Your task to perform on an android device: set default search engine in the chrome app Image 0: 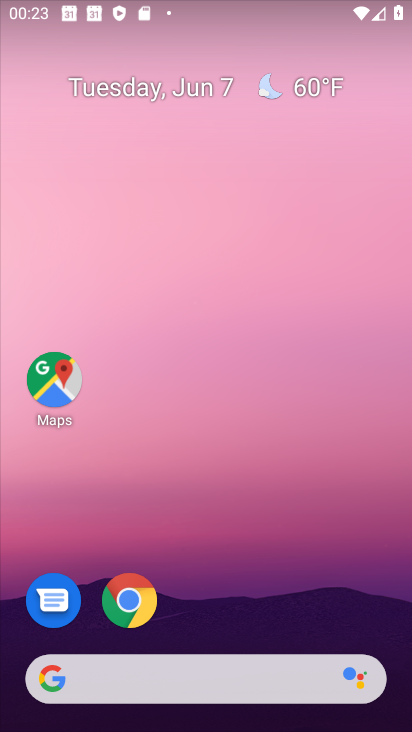
Step 0: click (126, 604)
Your task to perform on an android device: set default search engine in the chrome app Image 1: 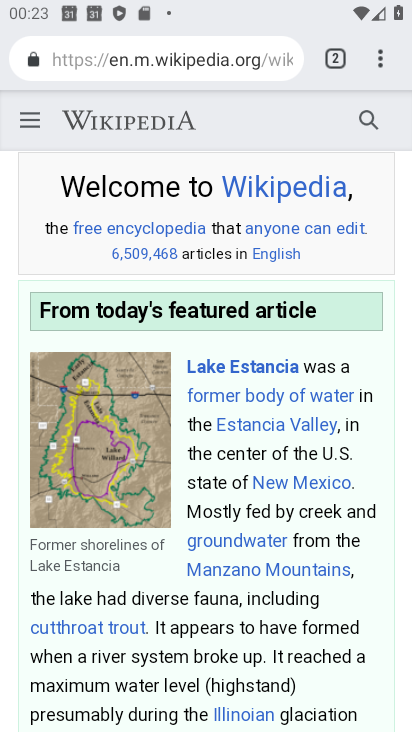
Step 1: click (380, 65)
Your task to perform on an android device: set default search engine in the chrome app Image 2: 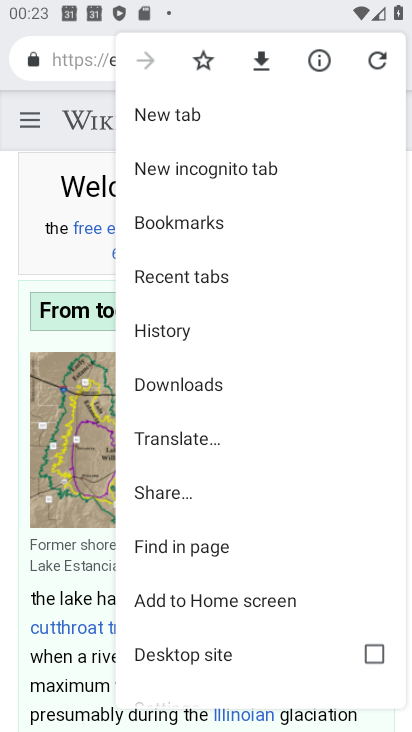
Step 2: drag from (211, 626) to (211, 310)
Your task to perform on an android device: set default search engine in the chrome app Image 3: 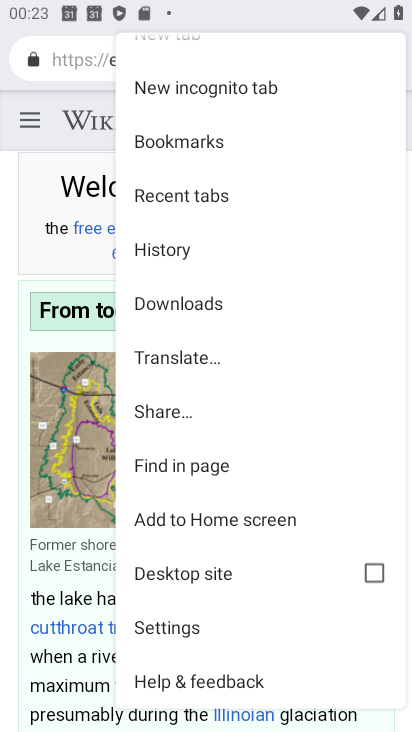
Step 3: click (180, 624)
Your task to perform on an android device: set default search engine in the chrome app Image 4: 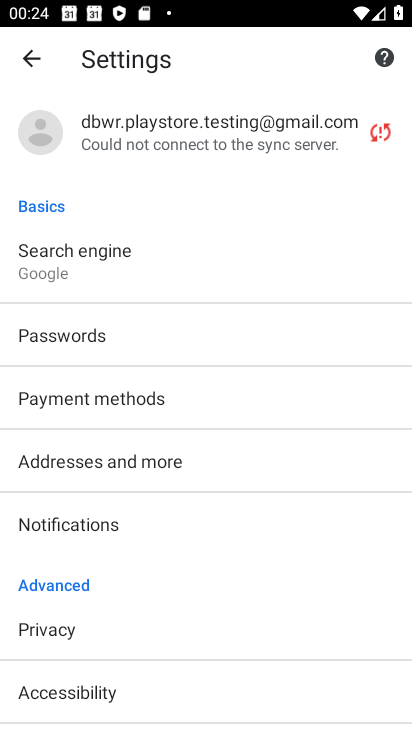
Step 4: click (70, 283)
Your task to perform on an android device: set default search engine in the chrome app Image 5: 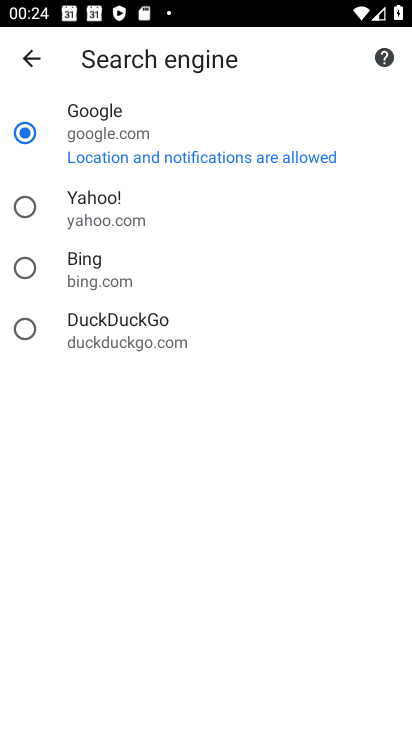
Step 5: click (19, 207)
Your task to perform on an android device: set default search engine in the chrome app Image 6: 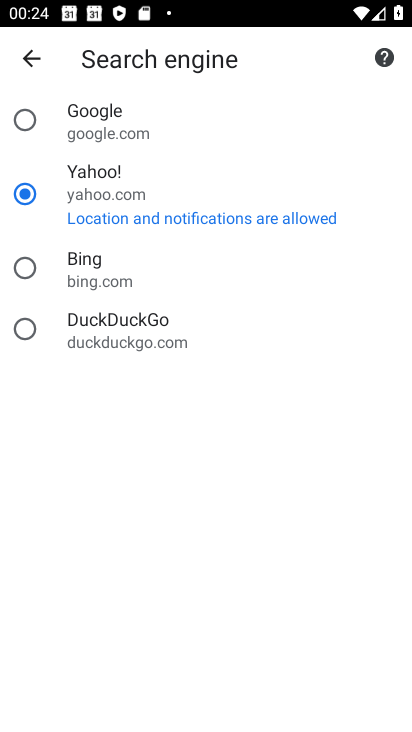
Step 6: task complete